Your task to perform on an android device: Go to notification settings Image 0: 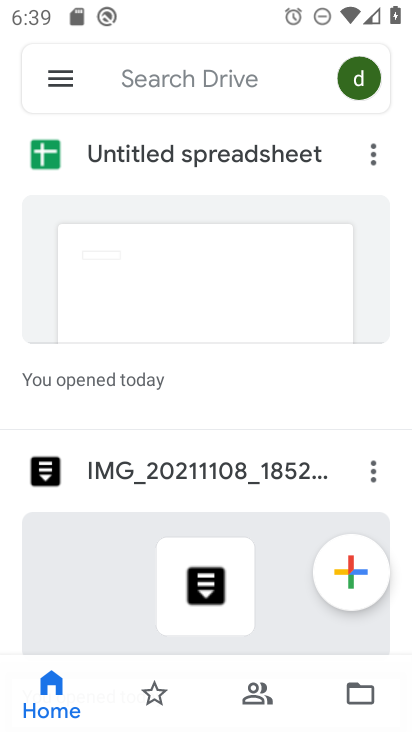
Step 0: press home button
Your task to perform on an android device: Go to notification settings Image 1: 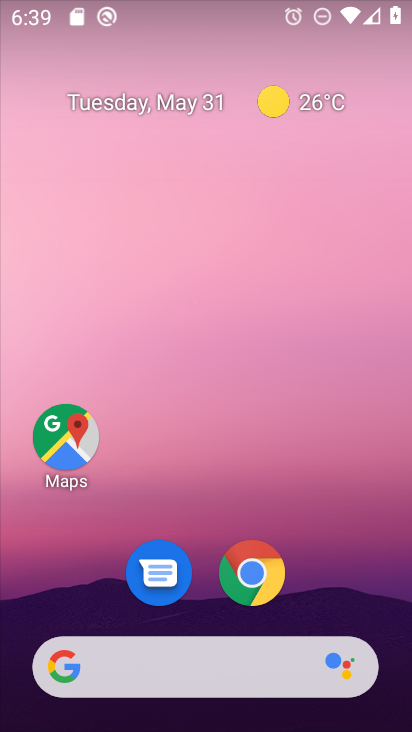
Step 1: drag from (383, 634) to (257, 93)
Your task to perform on an android device: Go to notification settings Image 2: 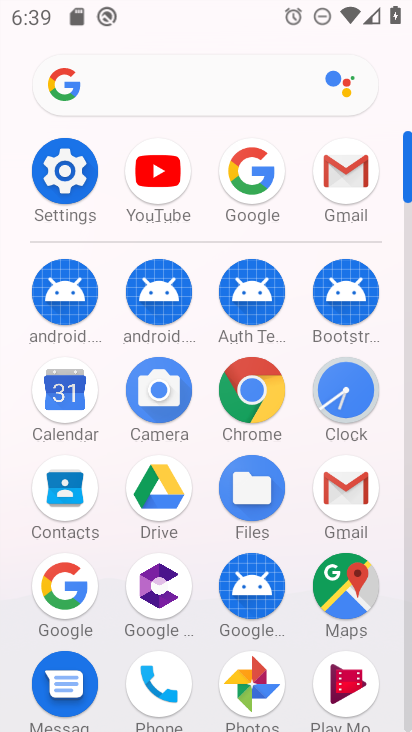
Step 2: click (93, 158)
Your task to perform on an android device: Go to notification settings Image 3: 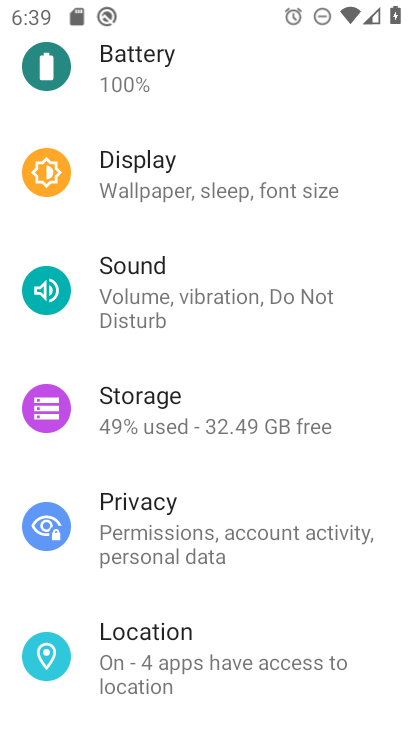
Step 3: drag from (216, 64) to (325, 585)
Your task to perform on an android device: Go to notification settings Image 4: 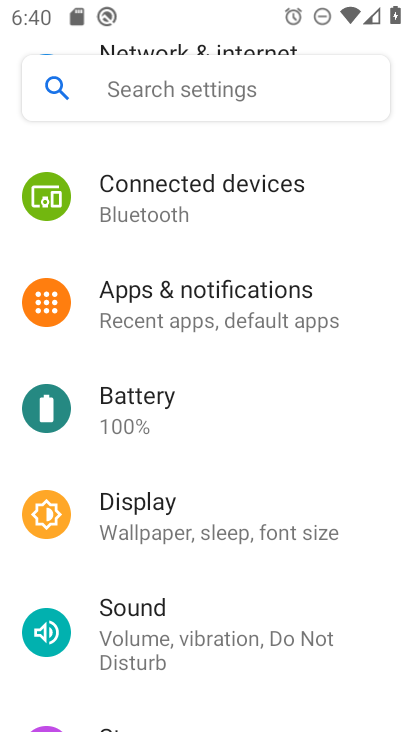
Step 4: click (207, 292)
Your task to perform on an android device: Go to notification settings Image 5: 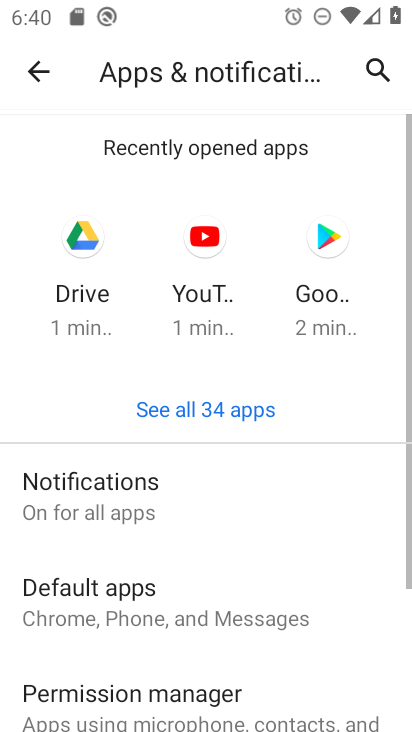
Step 5: click (188, 473)
Your task to perform on an android device: Go to notification settings Image 6: 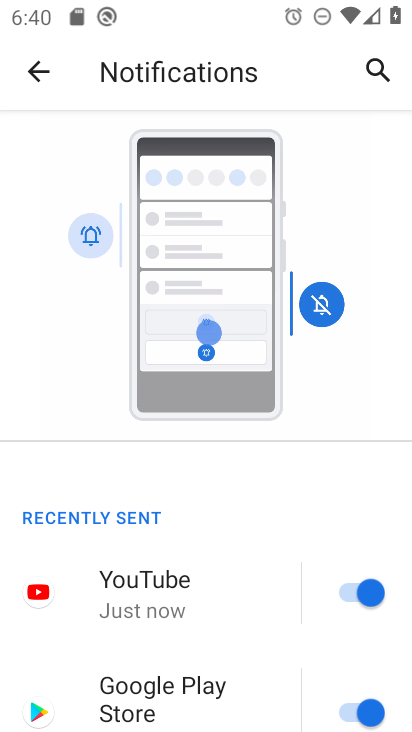
Step 6: task complete